Your task to perform on an android device: Toggle the flashlight Image 0: 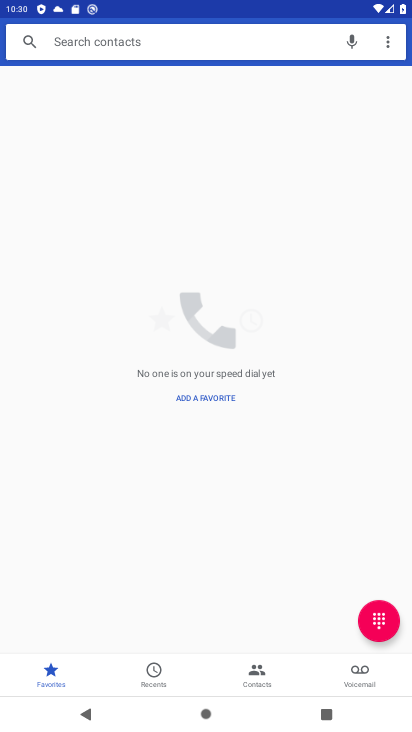
Step 0: press home button
Your task to perform on an android device: Toggle the flashlight Image 1: 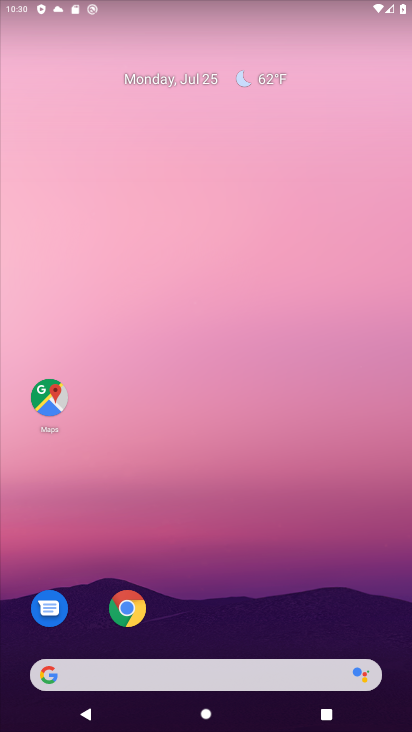
Step 1: drag from (230, 596) to (294, 247)
Your task to perform on an android device: Toggle the flashlight Image 2: 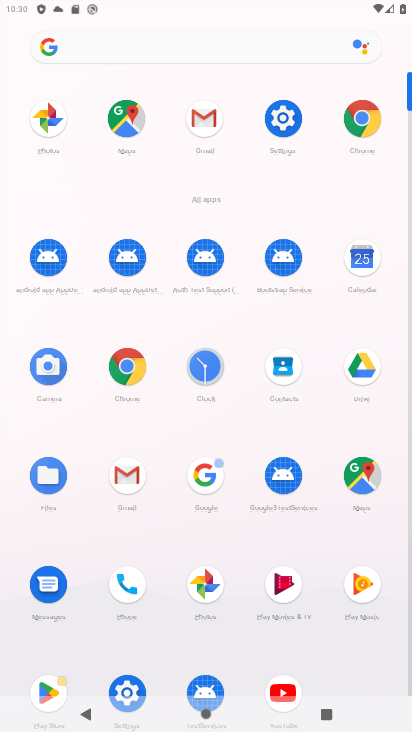
Step 2: click (132, 683)
Your task to perform on an android device: Toggle the flashlight Image 3: 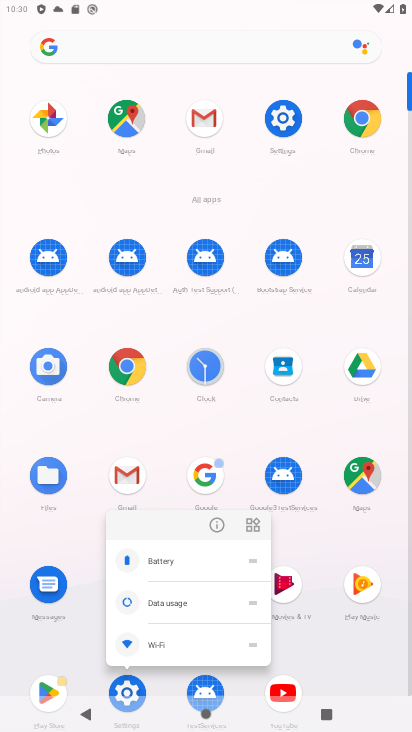
Step 3: click (124, 689)
Your task to perform on an android device: Toggle the flashlight Image 4: 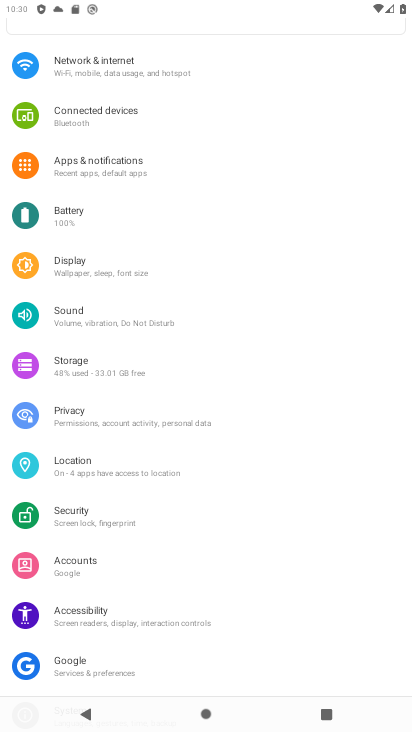
Step 4: drag from (184, 152) to (165, 688)
Your task to perform on an android device: Toggle the flashlight Image 5: 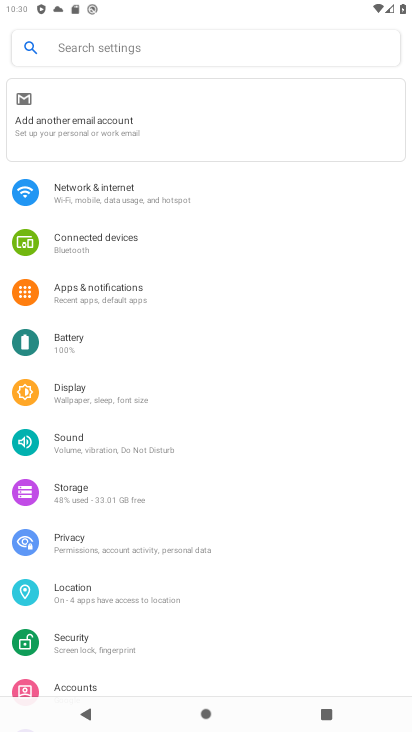
Step 5: click (131, 47)
Your task to perform on an android device: Toggle the flashlight Image 6: 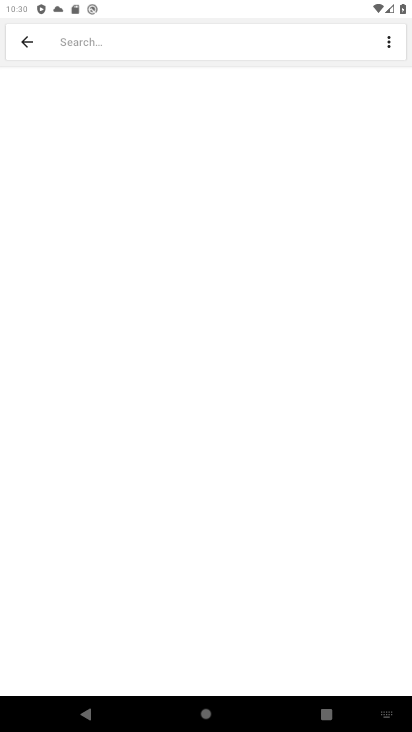
Step 6: type "flashlight"
Your task to perform on an android device: Toggle the flashlight Image 7: 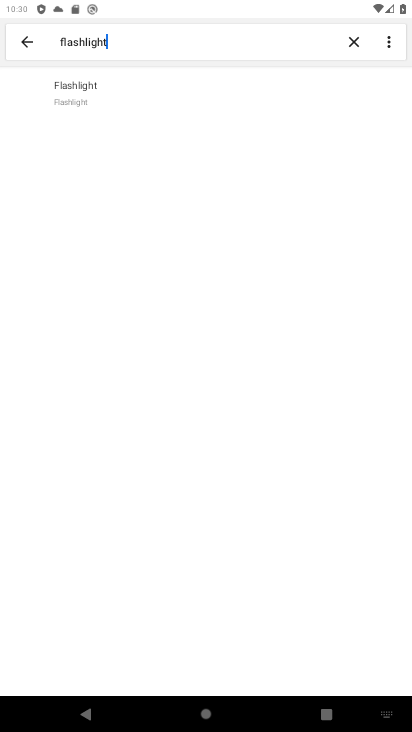
Step 7: click (88, 93)
Your task to perform on an android device: Toggle the flashlight Image 8: 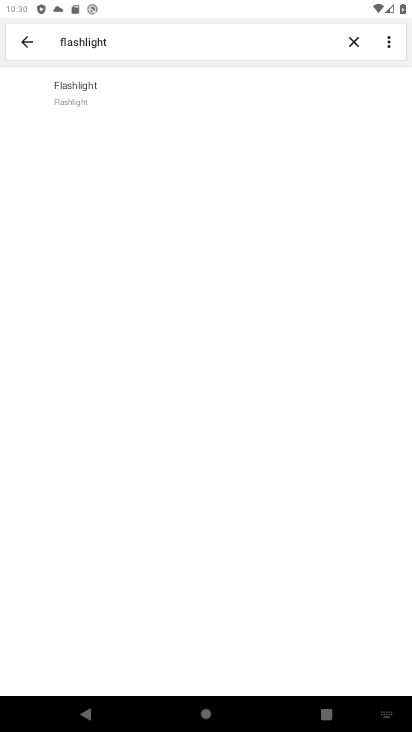
Step 8: click (87, 99)
Your task to perform on an android device: Toggle the flashlight Image 9: 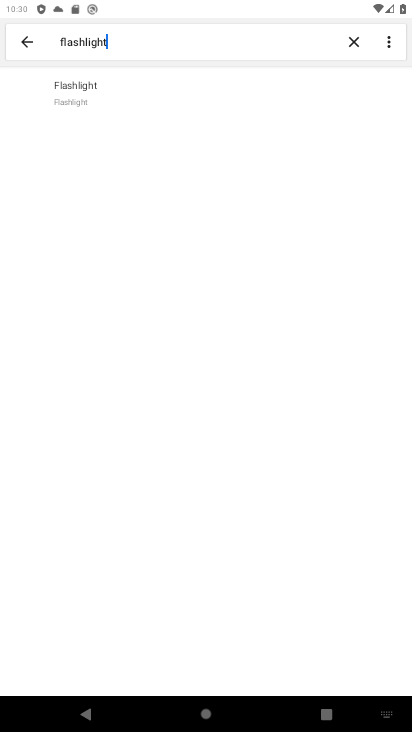
Step 9: task complete